Your task to perform on an android device: turn notification dots on Image 0: 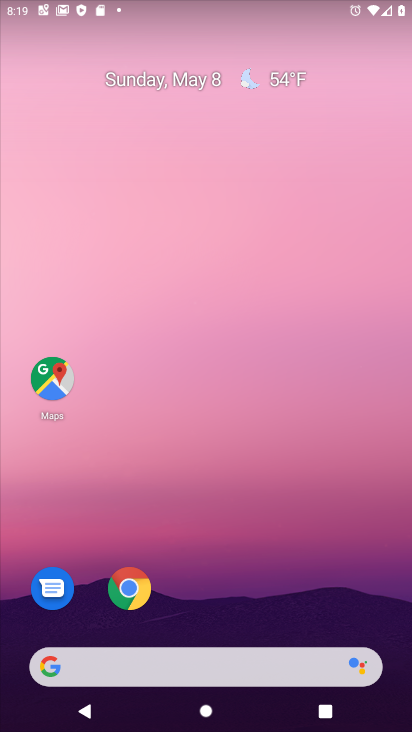
Step 0: drag from (274, 613) to (232, 69)
Your task to perform on an android device: turn notification dots on Image 1: 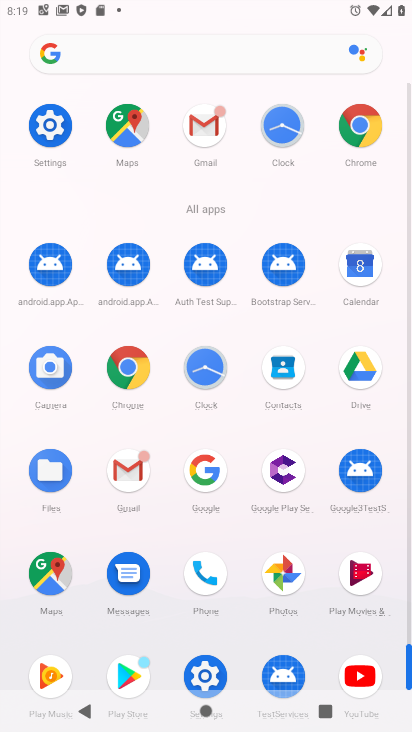
Step 1: click (214, 663)
Your task to perform on an android device: turn notification dots on Image 2: 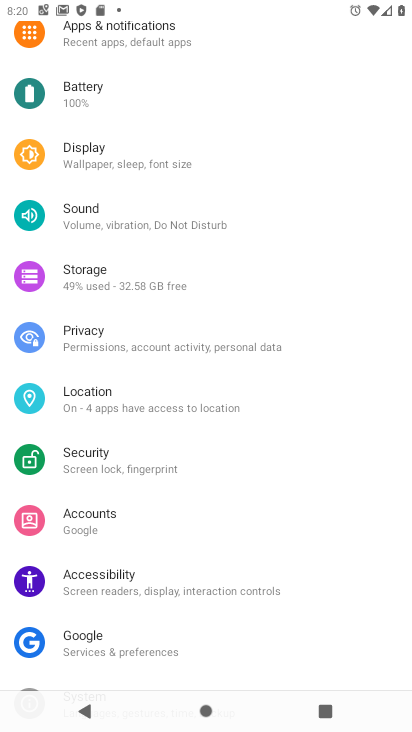
Step 2: click (130, 35)
Your task to perform on an android device: turn notification dots on Image 3: 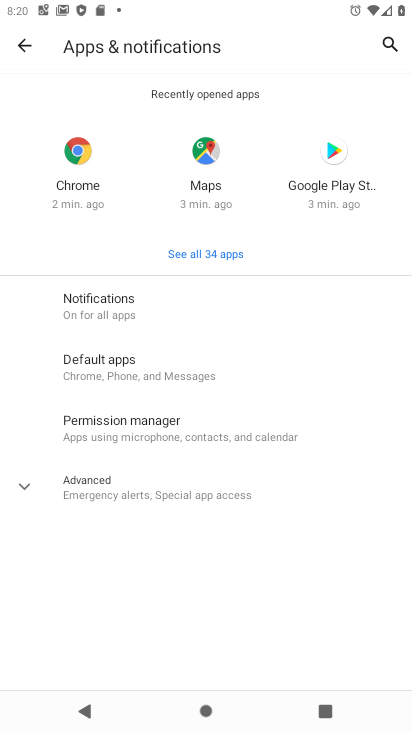
Step 3: click (115, 310)
Your task to perform on an android device: turn notification dots on Image 4: 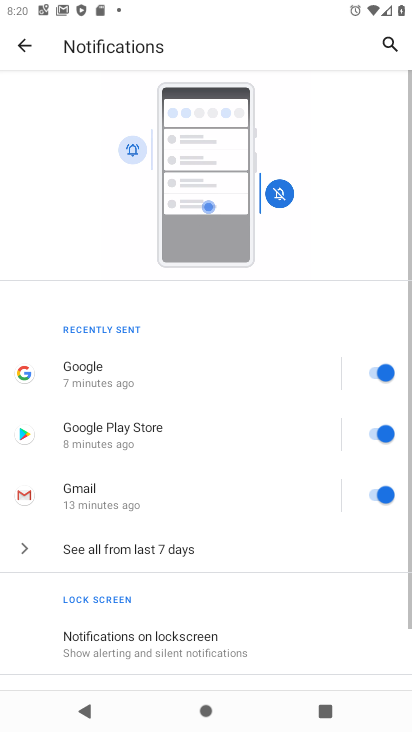
Step 4: drag from (183, 632) to (167, 297)
Your task to perform on an android device: turn notification dots on Image 5: 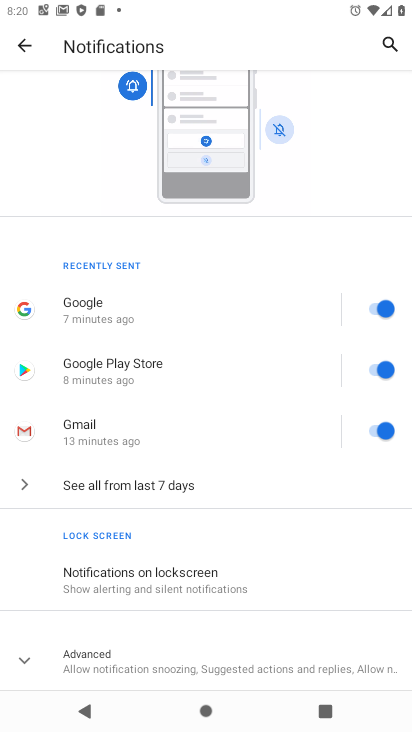
Step 5: click (118, 650)
Your task to perform on an android device: turn notification dots on Image 6: 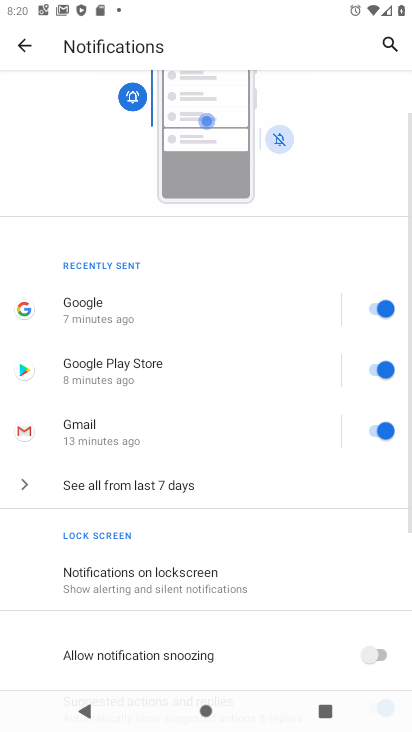
Step 6: task complete